Your task to perform on an android device: Clear all items from cart on target. Add razer blackwidow to the cart on target Image 0: 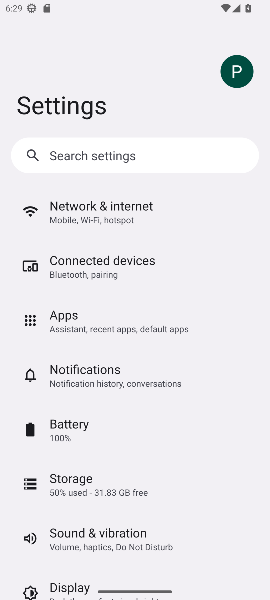
Step 0: press home button
Your task to perform on an android device: Clear all items from cart on target. Add razer blackwidow to the cart on target Image 1: 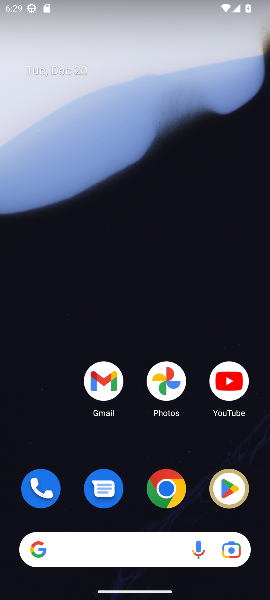
Step 1: drag from (48, 427) to (53, 49)
Your task to perform on an android device: Clear all items from cart on target. Add razer blackwidow to the cart on target Image 2: 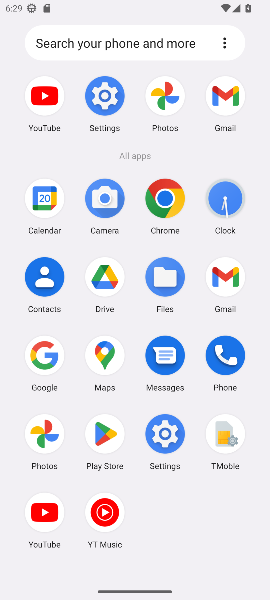
Step 2: click (32, 342)
Your task to perform on an android device: Clear all items from cart on target. Add razer blackwidow to the cart on target Image 3: 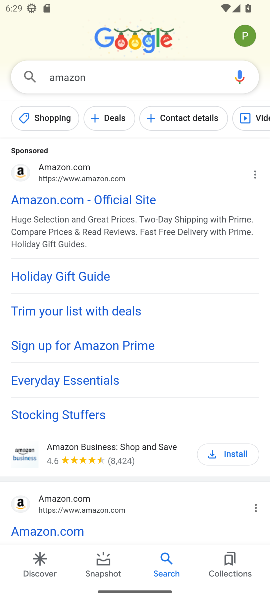
Step 3: click (97, 79)
Your task to perform on an android device: Clear all items from cart on target. Add razer blackwidow to the cart on target Image 4: 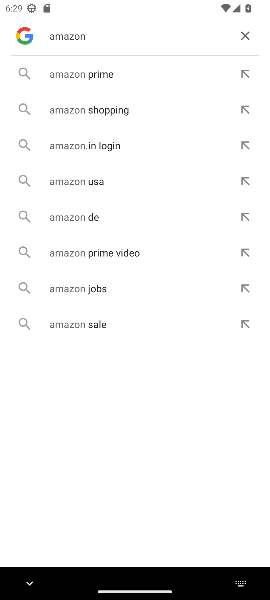
Step 4: click (243, 29)
Your task to perform on an android device: Clear all items from cart on target. Add razer blackwidow to the cart on target Image 5: 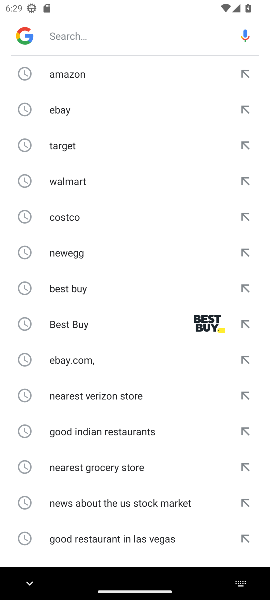
Step 5: press enter
Your task to perform on an android device: Clear all items from cart on target. Add razer blackwidow to the cart on target Image 6: 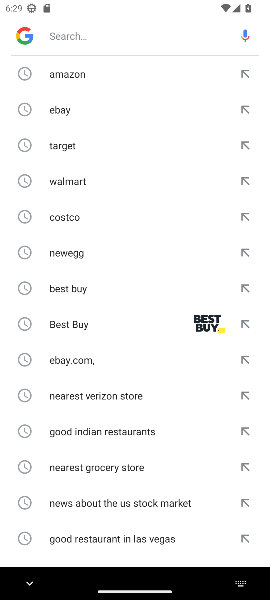
Step 6: type "target"
Your task to perform on an android device: Clear all items from cart on target. Add razer blackwidow to the cart on target Image 7: 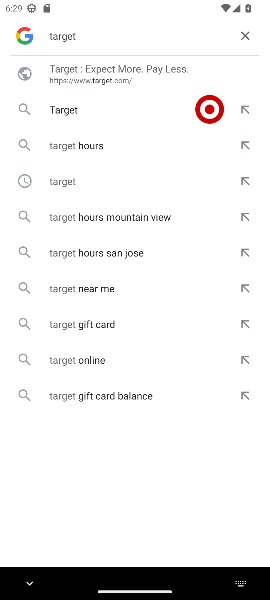
Step 7: press enter
Your task to perform on an android device: Clear all items from cart on target. Add razer blackwidow to the cart on target Image 8: 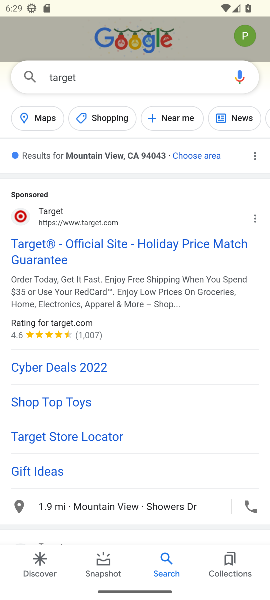
Step 8: click (92, 247)
Your task to perform on an android device: Clear all items from cart on target. Add razer blackwidow to the cart on target Image 9: 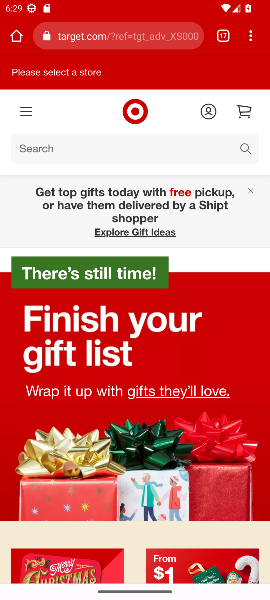
Step 9: click (247, 109)
Your task to perform on an android device: Clear all items from cart on target. Add razer blackwidow to the cart on target Image 10: 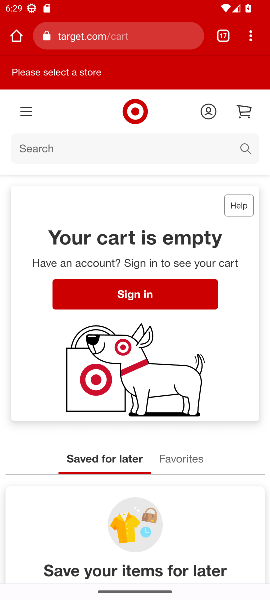
Step 10: click (71, 148)
Your task to perform on an android device: Clear all items from cart on target. Add razer blackwidow to the cart on target Image 11: 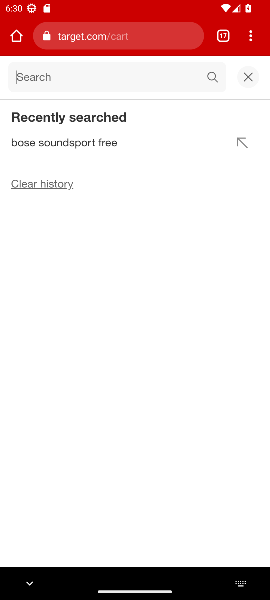
Step 11: type "razer blackwidow "
Your task to perform on an android device: Clear all items from cart on target. Add razer blackwidow to the cart on target Image 12: 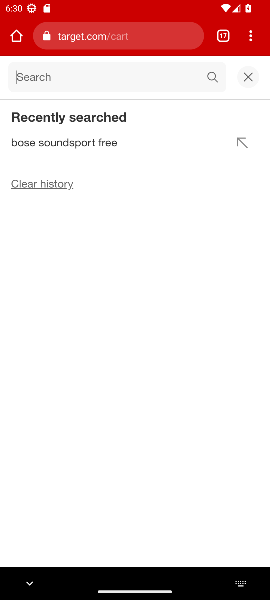
Step 12: press enter
Your task to perform on an android device: Clear all items from cart on target. Add razer blackwidow to the cart on target Image 13: 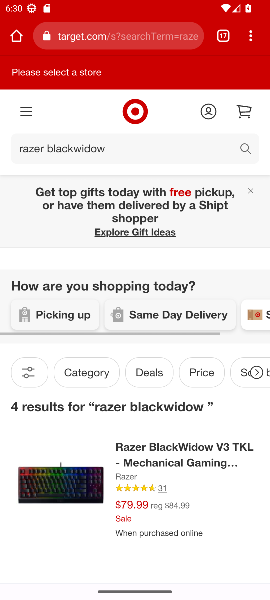
Step 13: click (161, 459)
Your task to perform on an android device: Clear all items from cart on target. Add razer blackwidow to the cart on target Image 14: 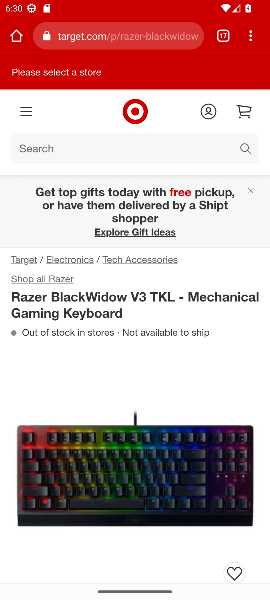
Step 14: drag from (119, 476) to (135, 178)
Your task to perform on an android device: Clear all items from cart on target. Add razer blackwidow to the cart on target Image 15: 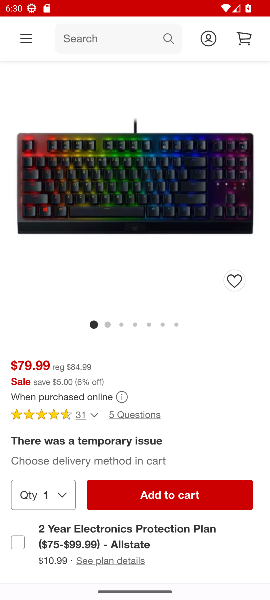
Step 15: click (165, 496)
Your task to perform on an android device: Clear all items from cart on target. Add razer blackwidow to the cart on target Image 16: 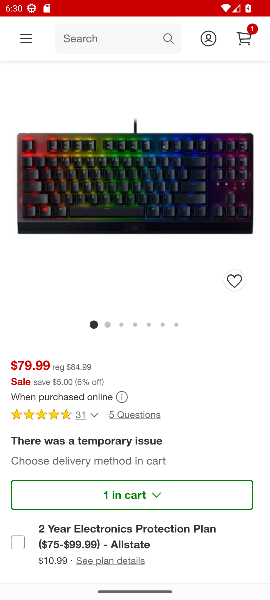
Step 16: task complete